Your task to perform on an android device: turn off sleep mode Image 0: 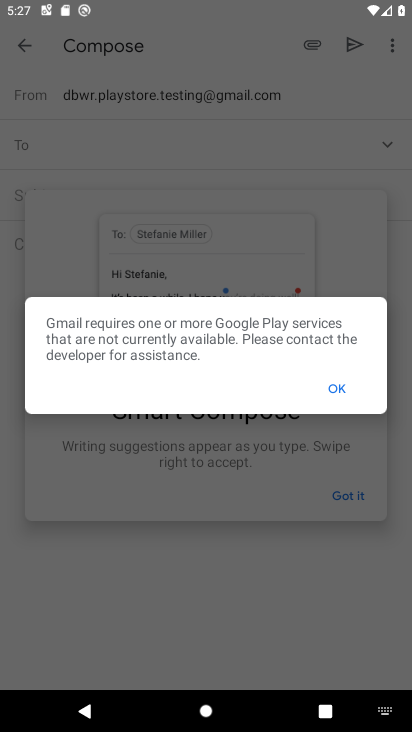
Step 0: press home button
Your task to perform on an android device: turn off sleep mode Image 1: 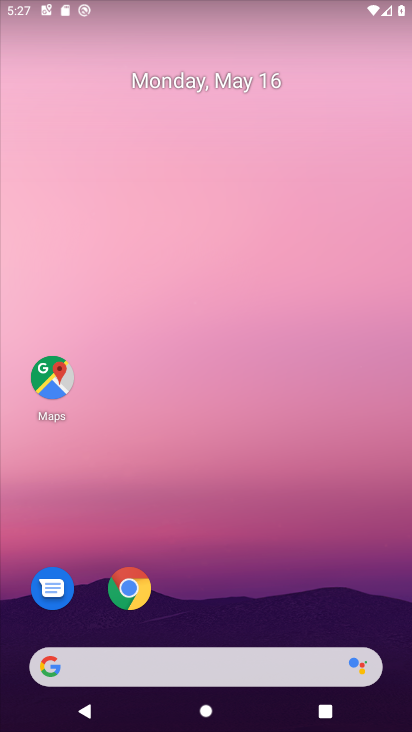
Step 1: drag from (248, 519) to (168, 25)
Your task to perform on an android device: turn off sleep mode Image 2: 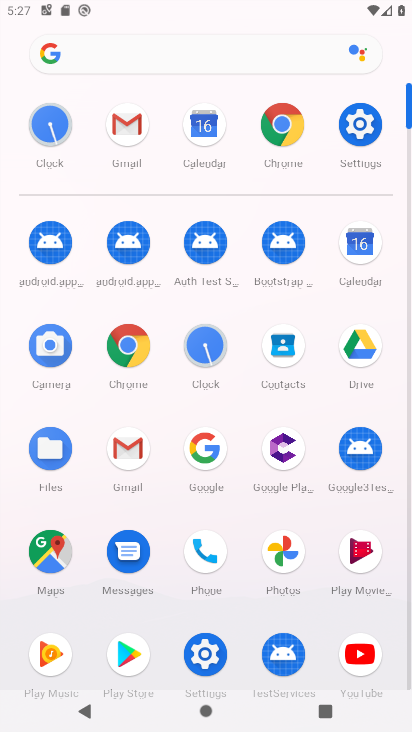
Step 2: click (362, 142)
Your task to perform on an android device: turn off sleep mode Image 3: 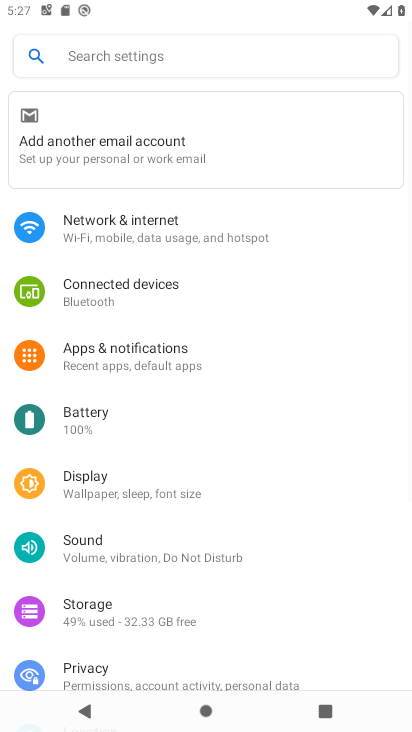
Step 3: click (128, 351)
Your task to perform on an android device: turn off sleep mode Image 4: 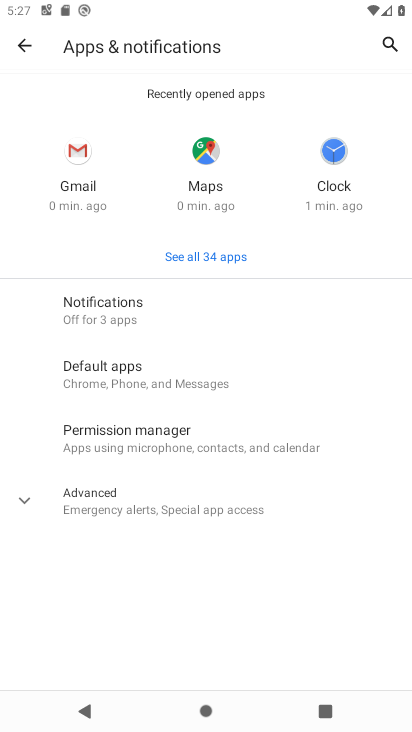
Step 4: task complete